Your task to perform on an android device: Clear all items from cart on amazon.com. Add razer thresher to the cart on amazon.com, then select checkout. Image 0: 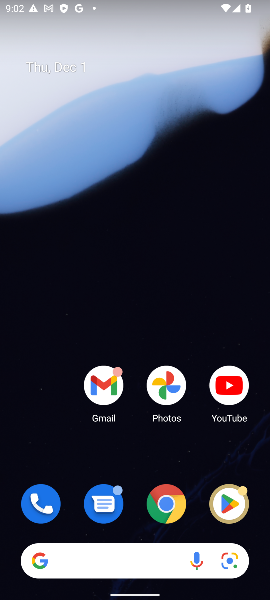
Step 0: click (164, 502)
Your task to perform on an android device: Clear all items from cart on amazon.com. Add razer thresher to the cart on amazon.com, then select checkout. Image 1: 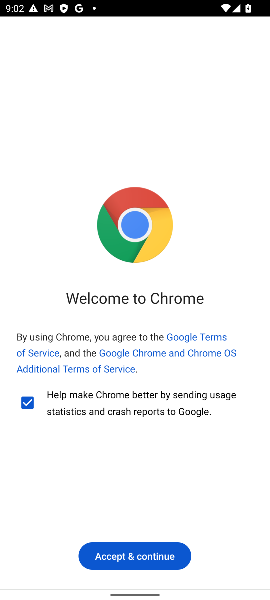
Step 1: click (145, 553)
Your task to perform on an android device: Clear all items from cart on amazon.com. Add razer thresher to the cart on amazon.com, then select checkout. Image 2: 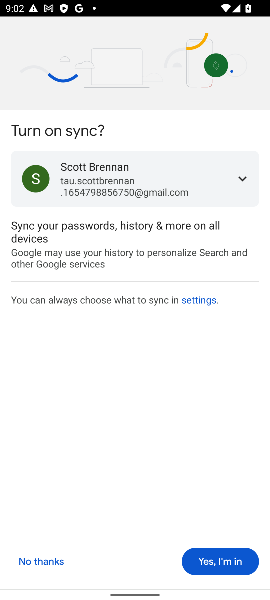
Step 2: click (205, 564)
Your task to perform on an android device: Clear all items from cart on amazon.com. Add razer thresher to the cart on amazon.com, then select checkout. Image 3: 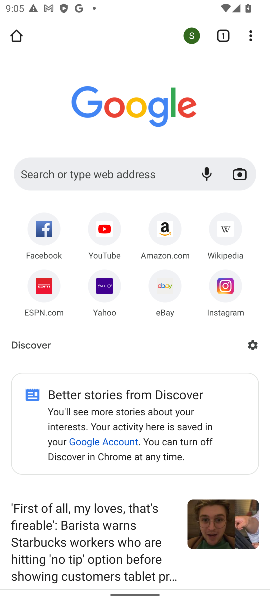
Step 3: click (126, 175)
Your task to perform on an android device: Clear all items from cart on amazon.com. Add razer thresher to the cart on amazon.com, then select checkout. Image 4: 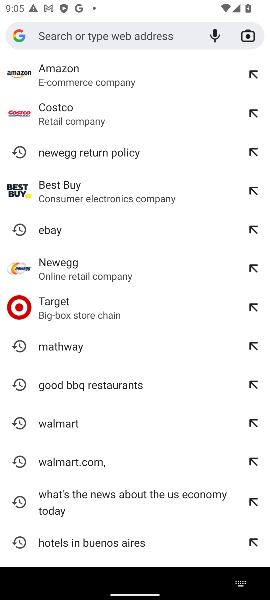
Step 4: click (87, 81)
Your task to perform on an android device: Clear all items from cart on amazon.com. Add razer thresher to the cart on amazon.com, then select checkout. Image 5: 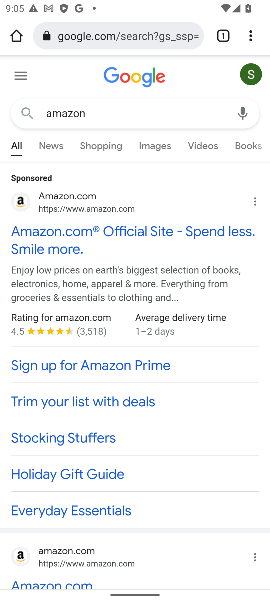
Step 5: click (114, 232)
Your task to perform on an android device: Clear all items from cart on amazon.com. Add razer thresher to the cart on amazon.com, then select checkout. Image 6: 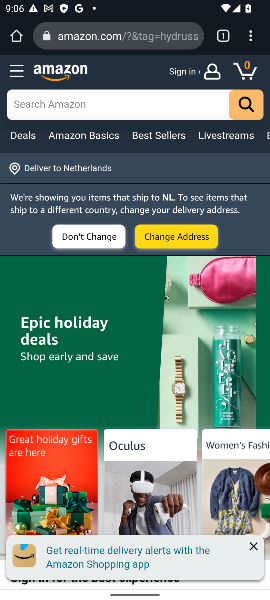
Step 6: click (75, 106)
Your task to perform on an android device: Clear all items from cart on amazon.com. Add razer thresher to the cart on amazon.com, then select checkout. Image 7: 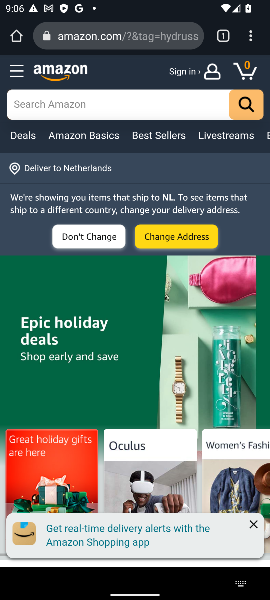
Step 7: type "razer thresher"
Your task to perform on an android device: Clear all items from cart on amazon.com. Add razer thresher to the cart on amazon.com, then select checkout. Image 8: 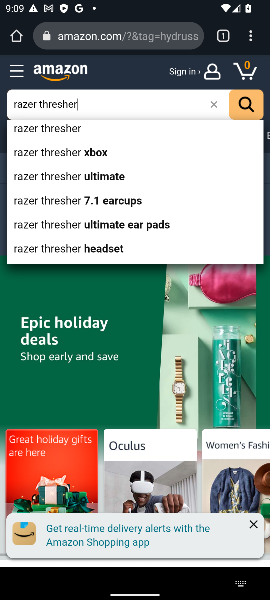
Step 8: click (83, 134)
Your task to perform on an android device: Clear all items from cart on amazon.com. Add razer thresher to the cart on amazon.com, then select checkout. Image 9: 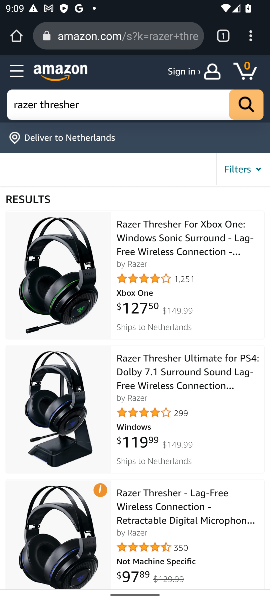
Step 9: click (52, 251)
Your task to perform on an android device: Clear all items from cart on amazon.com. Add razer thresher to the cart on amazon.com, then select checkout. Image 10: 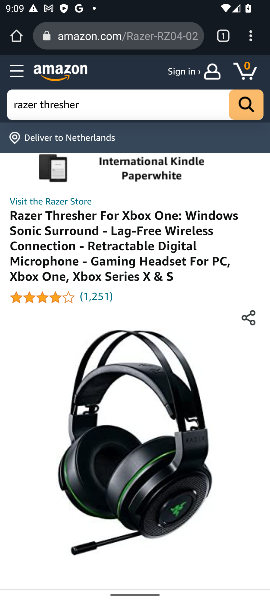
Step 10: drag from (142, 542) to (143, 197)
Your task to perform on an android device: Clear all items from cart on amazon.com. Add razer thresher to the cart on amazon.com, then select checkout. Image 11: 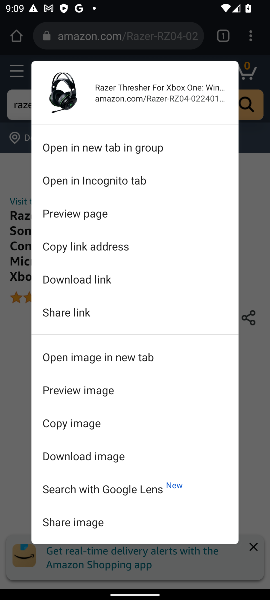
Step 11: click (6, 501)
Your task to perform on an android device: Clear all items from cart on amazon.com. Add razer thresher to the cart on amazon.com, then select checkout. Image 12: 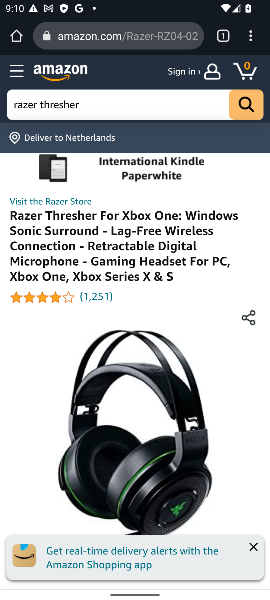
Step 12: drag from (190, 508) to (178, 231)
Your task to perform on an android device: Clear all items from cart on amazon.com. Add razer thresher to the cart on amazon.com, then select checkout. Image 13: 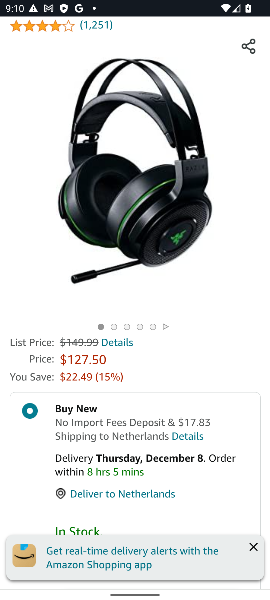
Step 13: drag from (178, 472) to (174, 216)
Your task to perform on an android device: Clear all items from cart on amazon.com. Add razer thresher to the cart on amazon.com, then select checkout. Image 14: 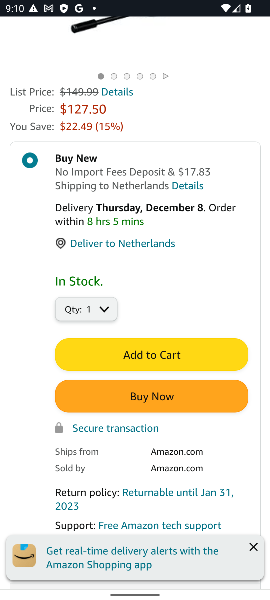
Step 14: click (132, 356)
Your task to perform on an android device: Clear all items from cart on amazon.com. Add razer thresher to the cart on amazon.com, then select checkout. Image 15: 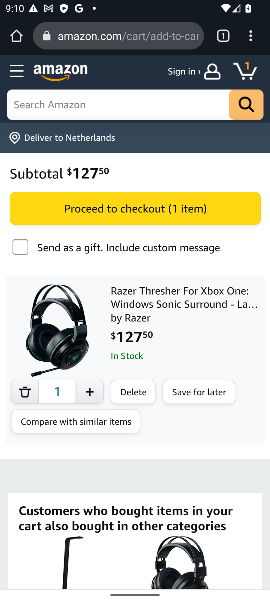
Step 15: click (162, 206)
Your task to perform on an android device: Clear all items from cart on amazon.com. Add razer thresher to the cart on amazon.com, then select checkout. Image 16: 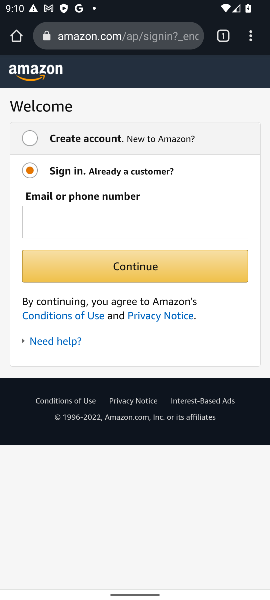
Step 16: task complete